Your task to perform on an android device: Toggle the flashlight Image 0: 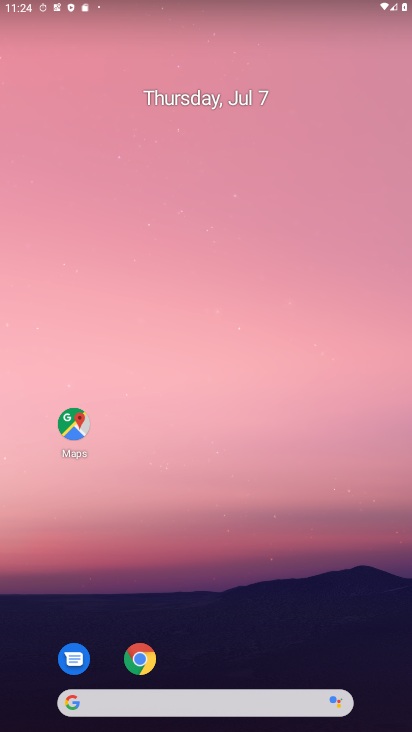
Step 0: drag from (211, 657) to (227, 136)
Your task to perform on an android device: Toggle the flashlight Image 1: 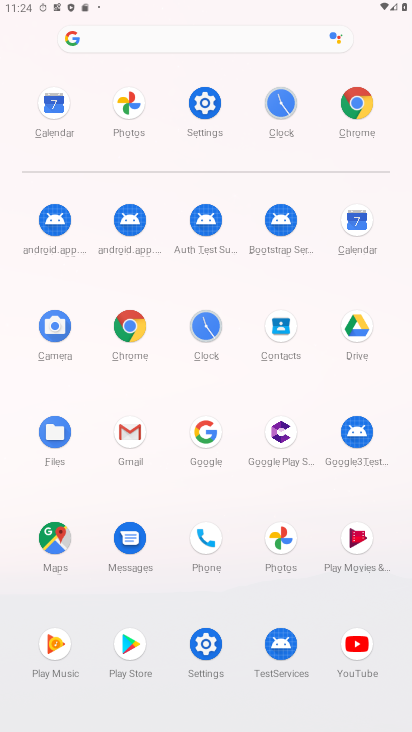
Step 1: click (204, 102)
Your task to perform on an android device: Toggle the flashlight Image 2: 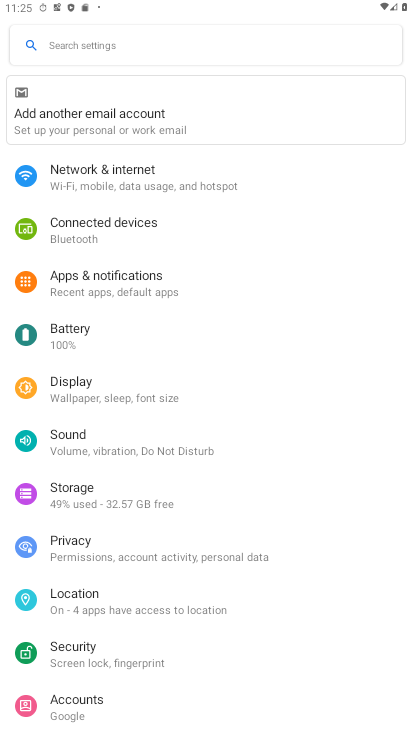
Step 2: click (106, 40)
Your task to perform on an android device: Toggle the flashlight Image 3: 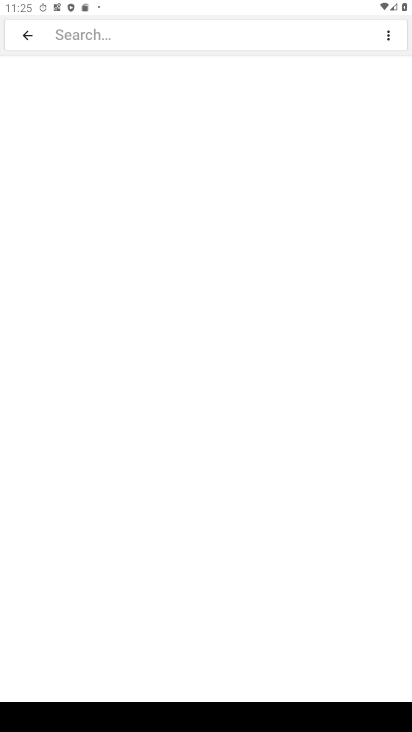
Step 3: type "flashlight"
Your task to perform on an android device: Toggle the flashlight Image 4: 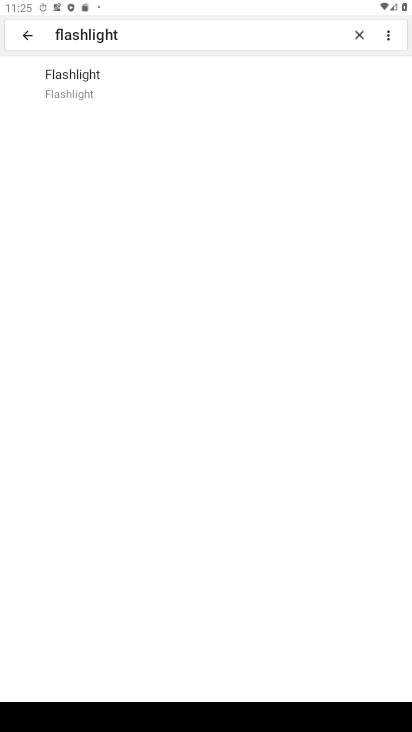
Step 4: click (88, 80)
Your task to perform on an android device: Toggle the flashlight Image 5: 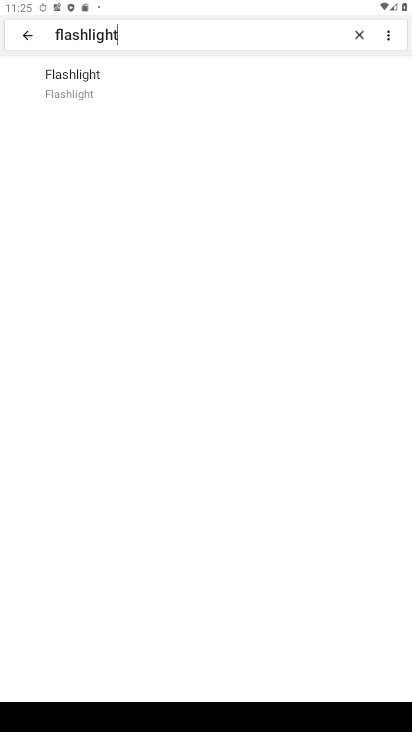
Step 5: task complete